Your task to perform on an android device: What's on my calendar tomorrow? Image 0: 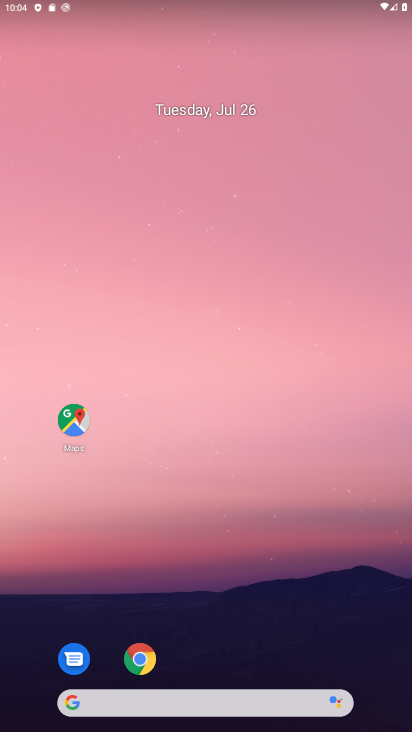
Step 0: press home button
Your task to perform on an android device: What's on my calendar tomorrow? Image 1: 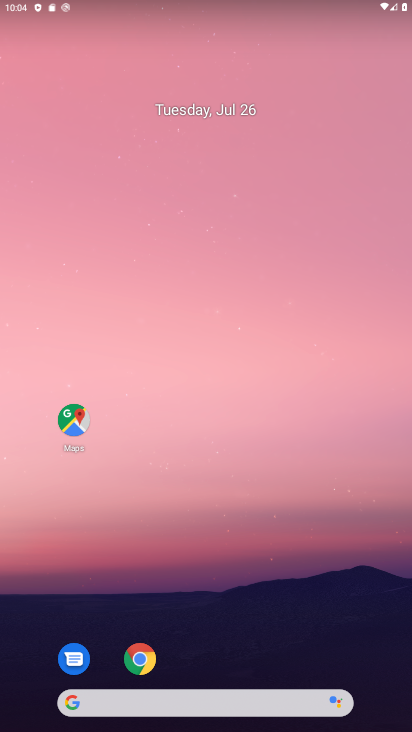
Step 1: drag from (309, 576) to (336, 5)
Your task to perform on an android device: What's on my calendar tomorrow? Image 2: 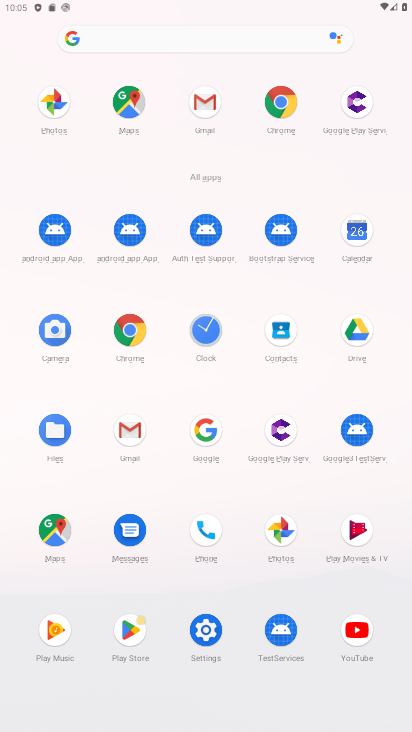
Step 2: click (360, 226)
Your task to perform on an android device: What's on my calendar tomorrow? Image 3: 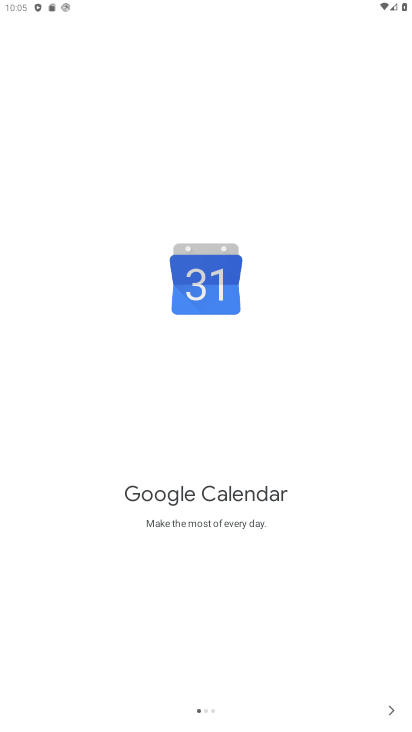
Step 3: click (398, 718)
Your task to perform on an android device: What's on my calendar tomorrow? Image 4: 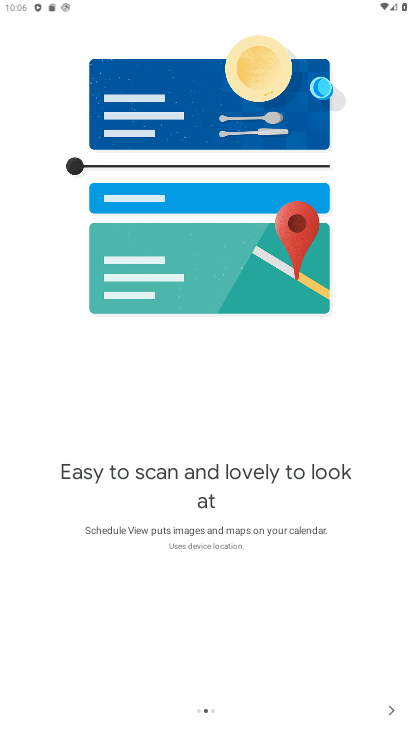
Step 4: click (388, 715)
Your task to perform on an android device: What's on my calendar tomorrow? Image 5: 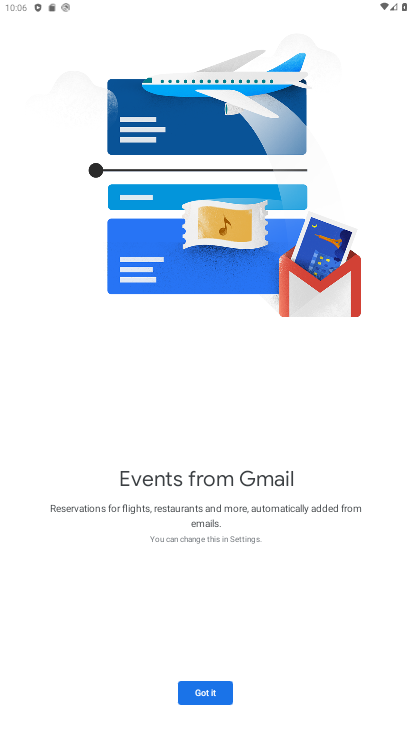
Step 5: click (172, 683)
Your task to perform on an android device: What's on my calendar tomorrow? Image 6: 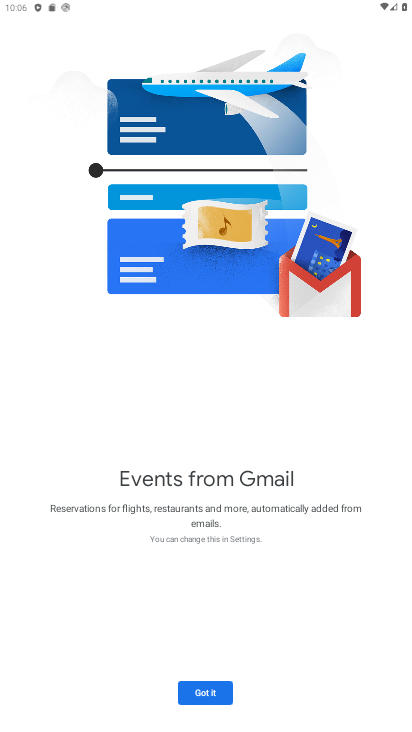
Step 6: click (183, 687)
Your task to perform on an android device: What's on my calendar tomorrow? Image 7: 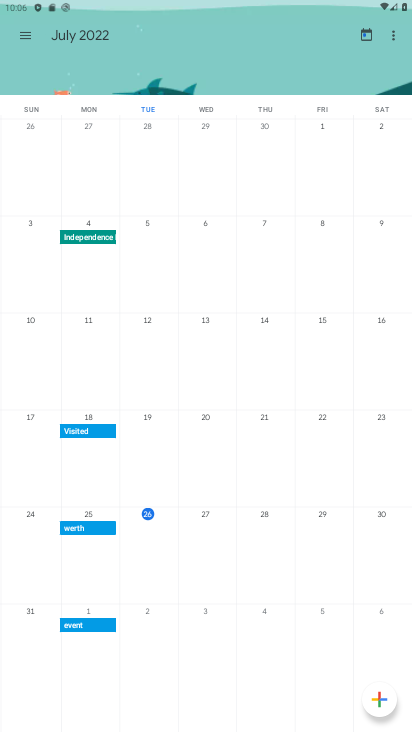
Step 7: click (261, 534)
Your task to perform on an android device: What's on my calendar tomorrow? Image 8: 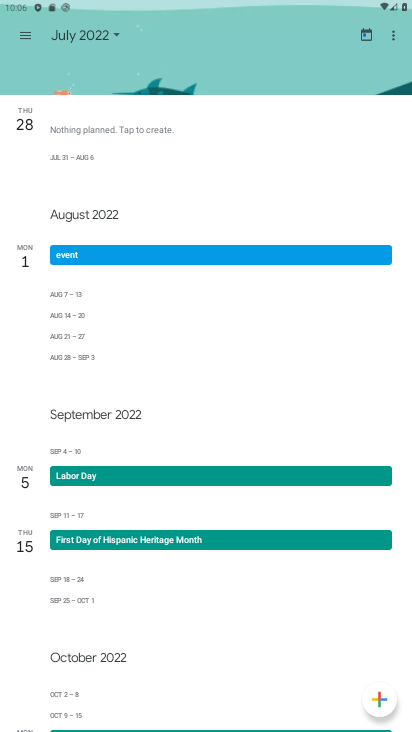
Step 8: task complete